Your task to perform on an android device: Is it going to rain this weekend? Image 0: 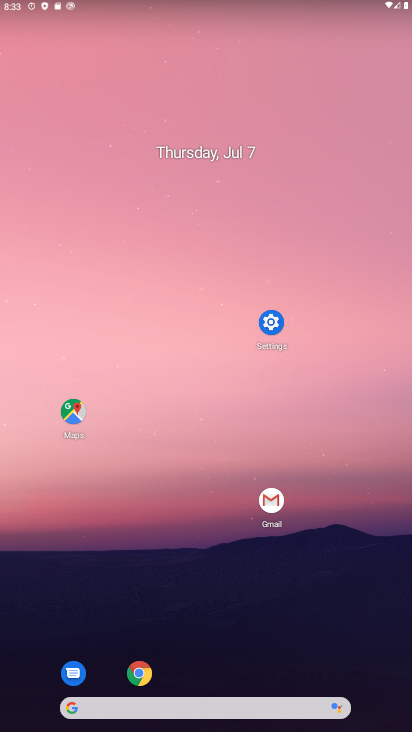
Step 0: drag from (0, 197) to (344, 220)
Your task to perform on an android device: Is it going to rain this weekend? Image 1: 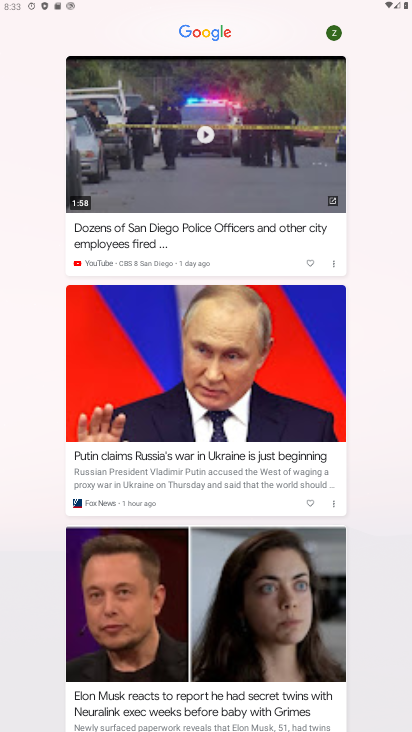
Step 1: task complete